Your task to perform on an android device: open app "Spotify" (install if not already installed) and enter user name: "infallible@icloud.com" and password: "implored" Image 0: 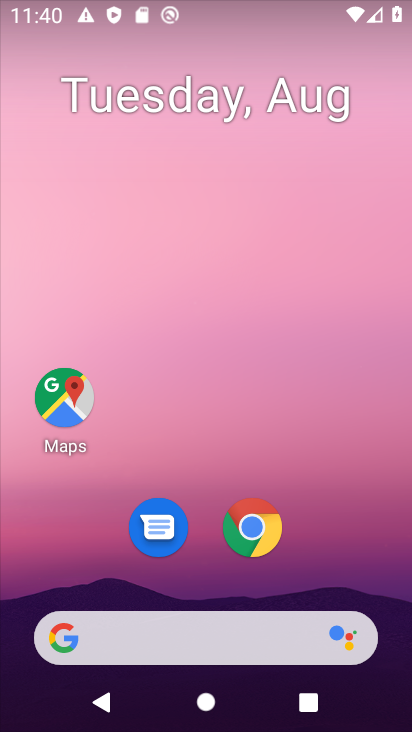
Step 0: drag from (182, 556) to (264, 21)
Your task to perform on an android device: open app "Spotify" (install if not already installed) and enter user name: "infallible@icloud.com" and password: "implored" Image 1: 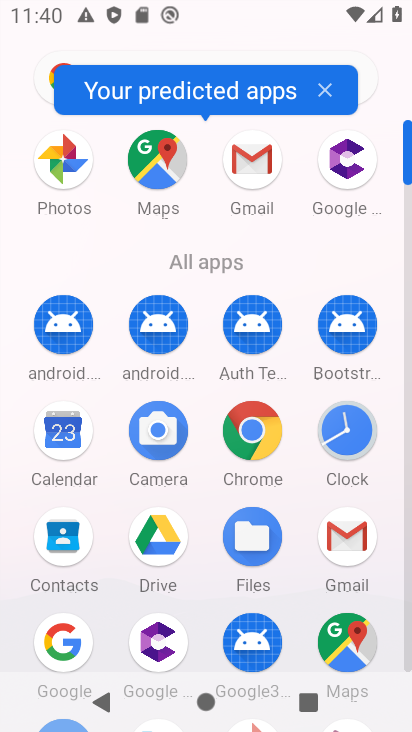
Step 1: drag from (191, 592) to (236, 125)
Your task to perform on an android device: open app "Spotify" (install if not already installed) and enter user name: "infallible@icloud.com" and password: "implored" Image 2: 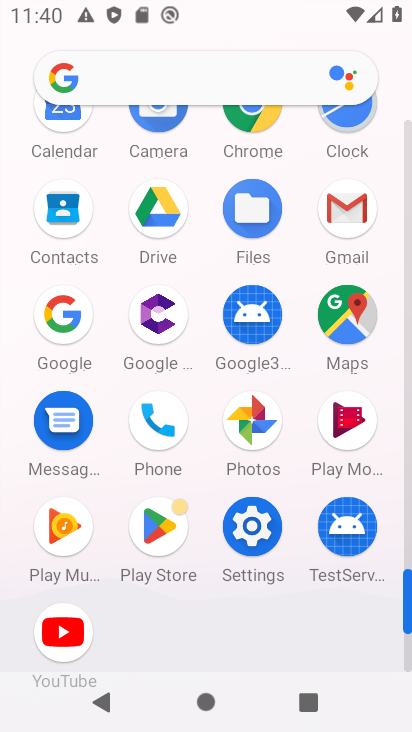
Step 2: click (155, 533)
Your task to perform on an android device: open app "Spotify" (install if not already installed) and enter user name: "infallible@icloud.com" and password: "implored" Image 3: 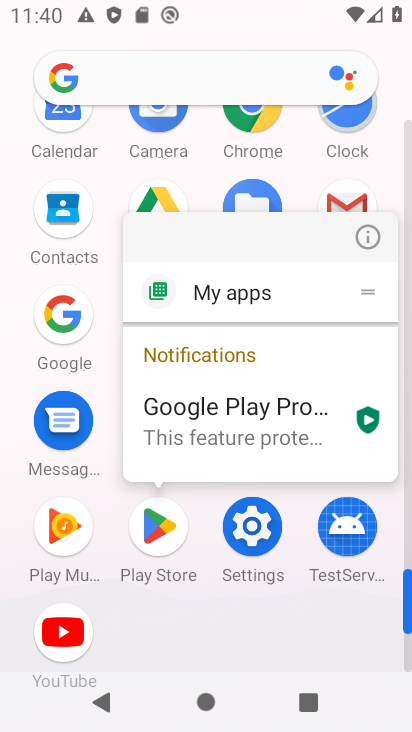
Step 3: click (158, 528)
Your task to perform on an android device: open app "Spotify" (install if not already installed) and enter user name: "infallible@icloud.com" and password: "implored" Image 4: 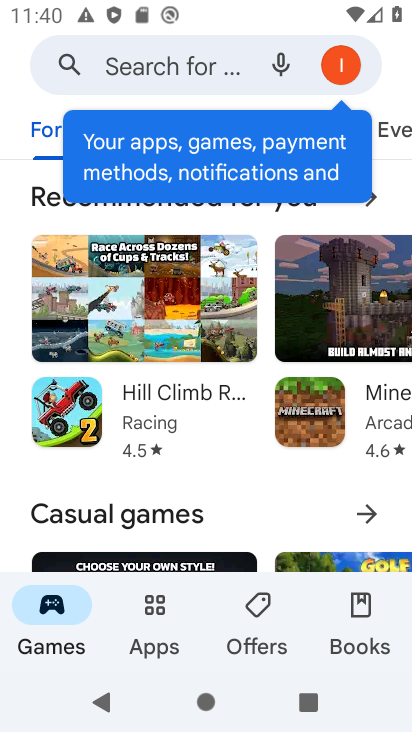
Step 4: click (141, 69)
Your task to perform on an android device: open app "Spotify" (install if not already installed) and enter user name: "infallible@icloud.com" and password: "implored" Image 5: 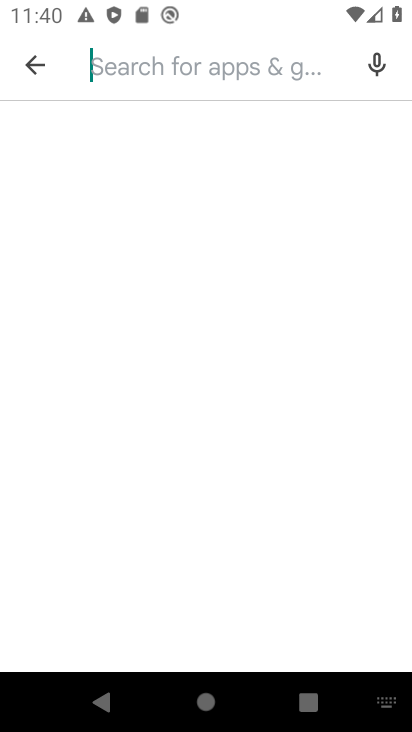
Step 5: type "spotify"
Your task to perform on an android device: open app "Spotify" (install if not already installed) and enter user name: "infallible@icloud.com" and password: "implored" Image 6: 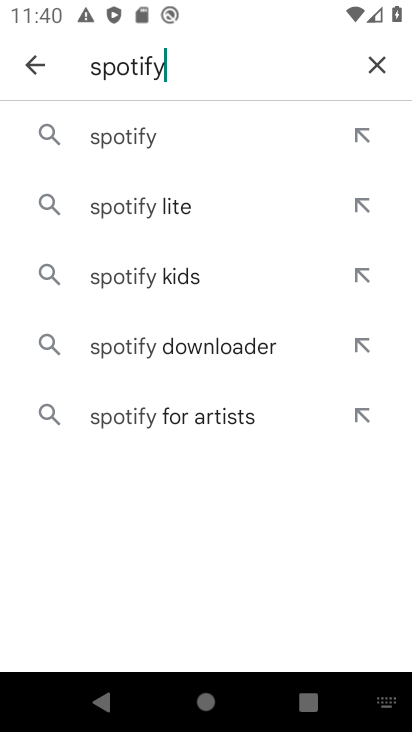
Step 6: click (160, 128)
Your task to perform on an android device: open app "Spotify" (install if not already installed) and enter user name: "infallible@icloud.com" and password: "implored" Image 7: 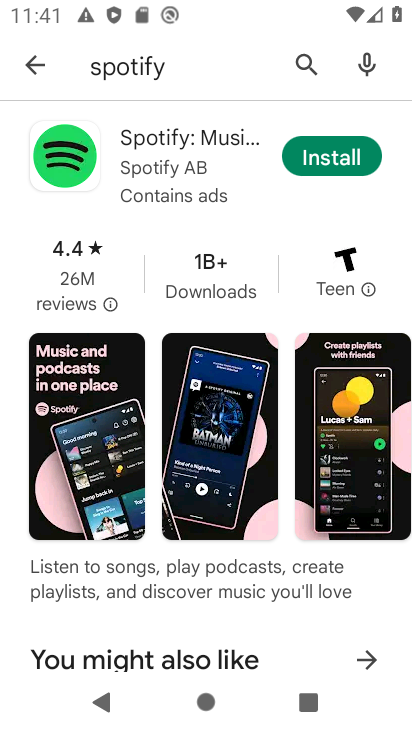
Step 7: click (336, 149)
Your task to perform on an android device: open app "Spotify" (install if not already installed) and enter user name: "infallible@icloud.com" and password: "implored" Image 8: 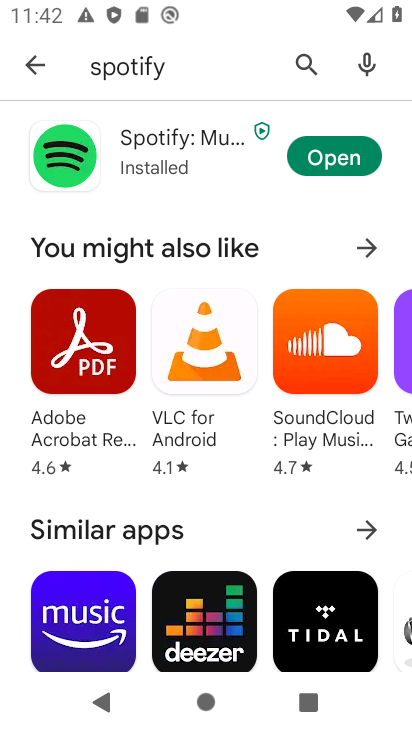
Step 8: click (345, 149)
Your task to perform on an android device: open app "Spotify" (install if not already installed) and enter user name: "infallible@icloud.com" and password: "implored" Image 9: 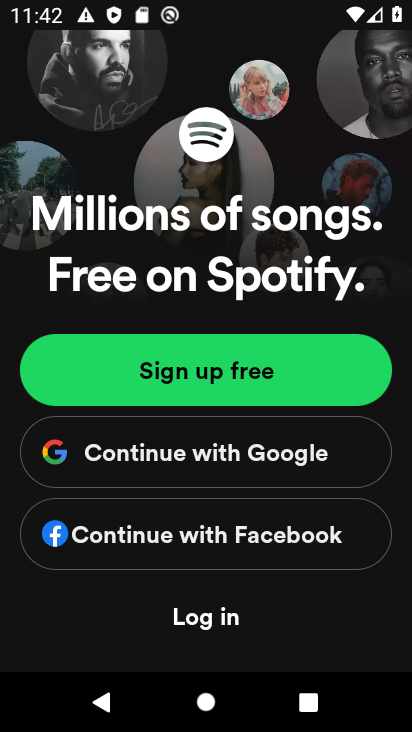
Step 9: click (197, 618)
Your task to perform on an android device: open app "Spotify" (install if not already installed) and enter user name: "infallible@icloud.com" and password: "implored" Image 10: 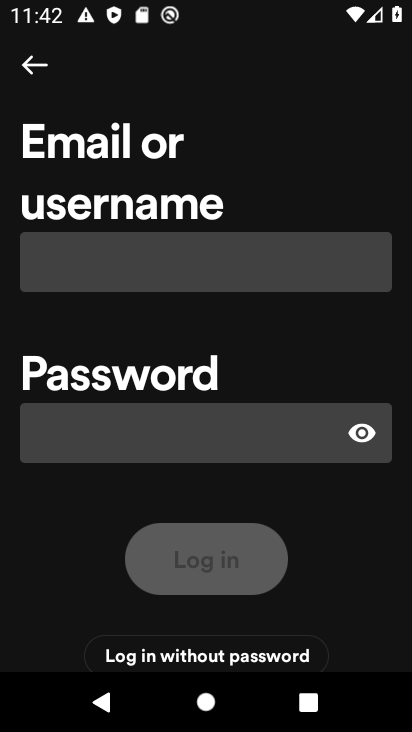
Step 10: click (73, 250)
Your task to perform on an android device: open app "Spotify" (install if not already installed) and enter user name: "infallible@icloud.com" and password: "implored" Image 11: 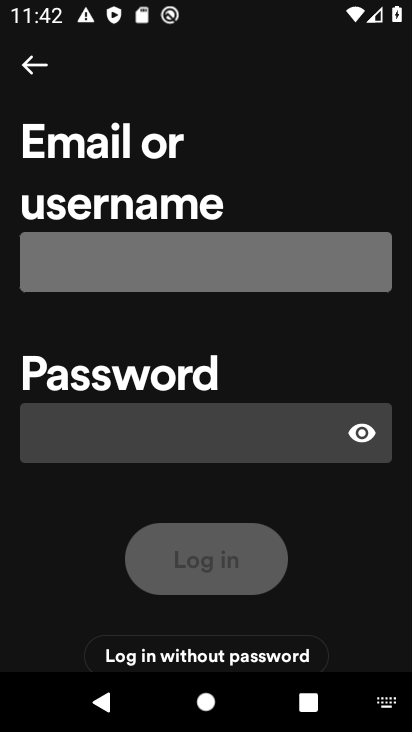
Step 11: click (138, 277)
Your task to perform on an android device: open app "Spotify" (install if not already installed) and enter user name: "infallible@icloud.com" and password: "implored" Image 12: 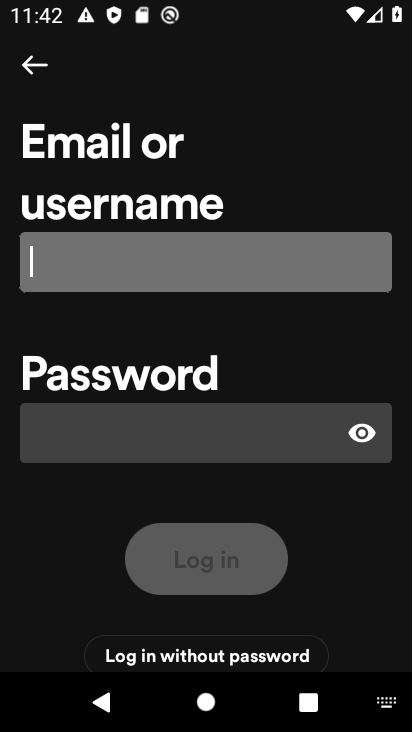
Step 12: type "infallible@icloud.com"
Your task to perform on an android device: open app "Spotify" (install if not already installed) and enter user name: "infallible@icloud.com" and password: "implored" Image 13: 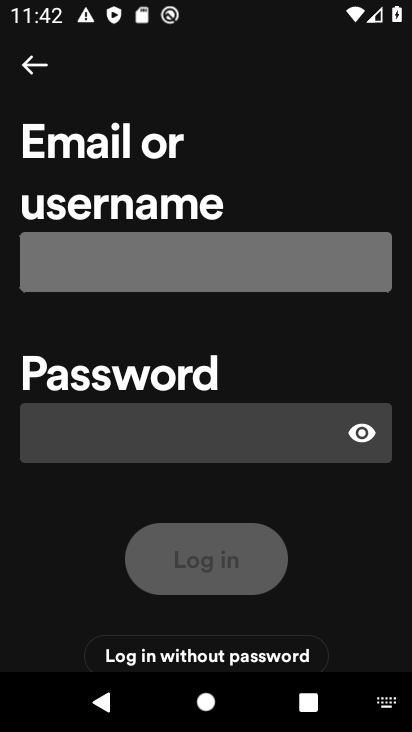
Step 13: click (146, 438)
Your task to perform on an android device: open app "Spotify" (install if not already installed) and enter user name: "infallible@icloud.com" and password: "implored" Image 14: 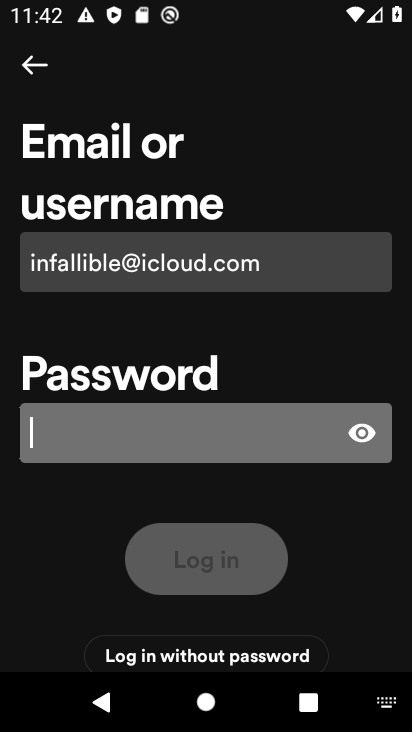
Step 14: click (128, 429)
Your task to perform on an android device: open app "Spotify" (install if not already installed) and enter user name: "infallible@icloud.com" and password: "implored" Image 15: 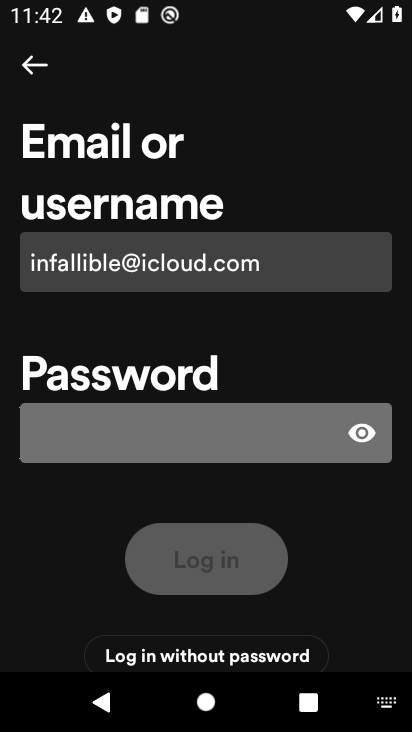
Step 15: type "implored"
Your task to perform on an android device: open app "Spotify" (install if not already installed) and enter user name: "infallible@icloud.com" and password: "implored" Image 16: 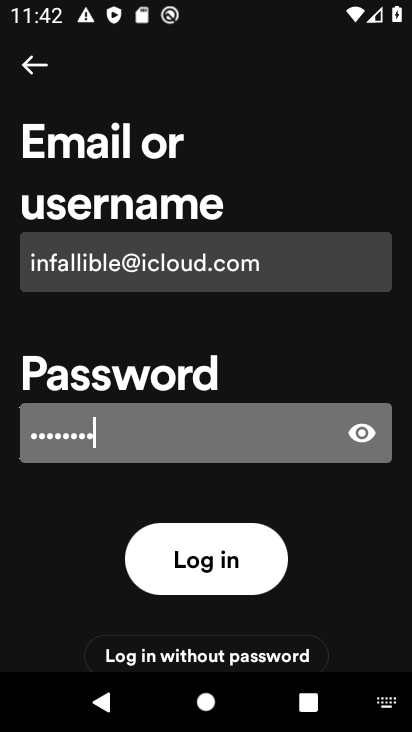
Step 16: task complete